Your task to perform on an android device: turn on bluetooth scan Image 0: 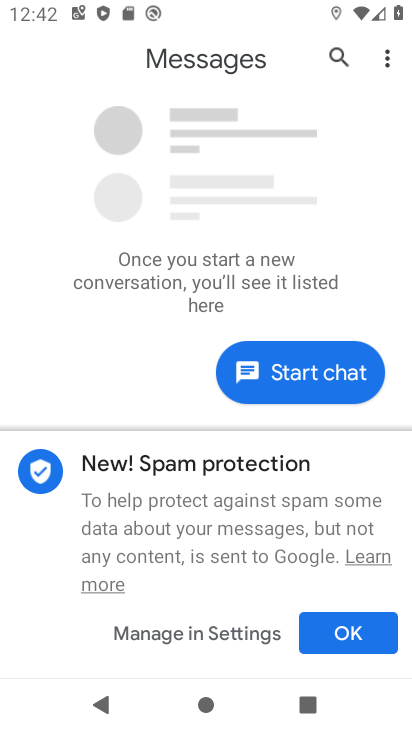
Step 0: press home button
Your task to perform on an android device: turn on bluetooth scan Image 1: 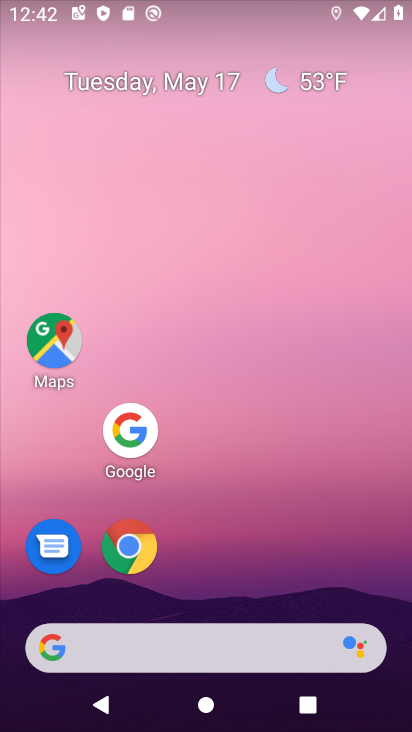
Step 1: drag from (245, 546) to (271, 159)
Your task to perform on an android device: turn on bluetooth scan Image 2: 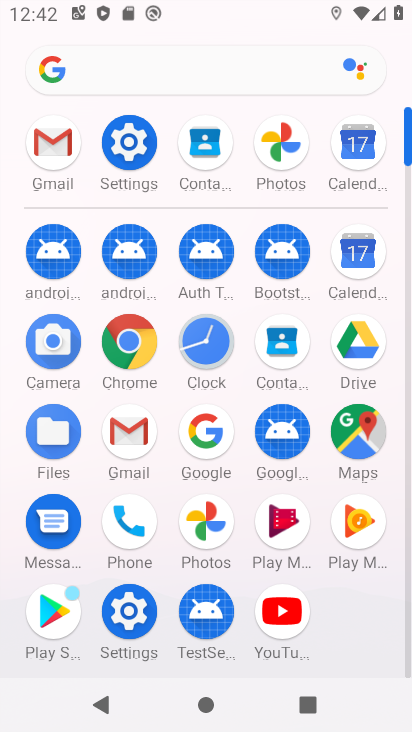
Step 2: click (130, 617)
Your task to perform on an android device: turn on bluetooth scan Image 3: 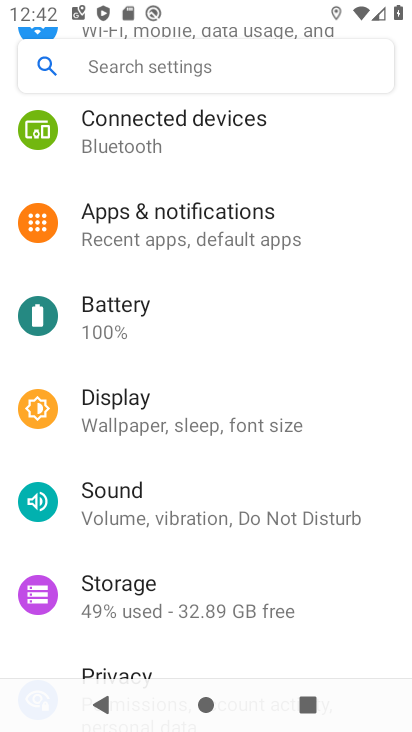
Step 3: drag from (181, 264) to (254, 85)
Your task to perform on an android device: turn on bluetooth scan Image 4: 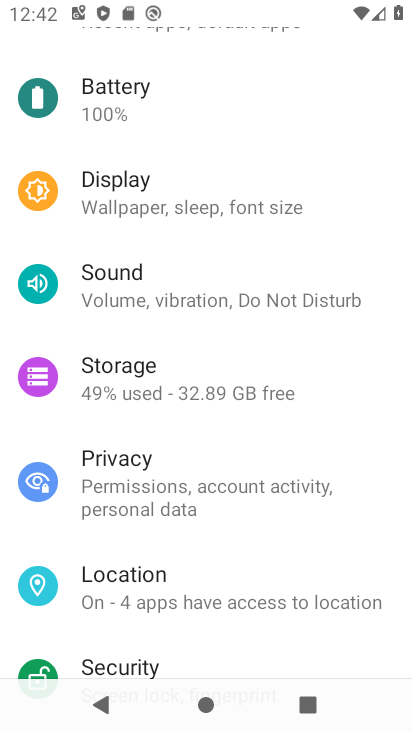
Step 4: click (155, 584)
Your task to perform on an android device: turn on bluetooth scan Image 5: 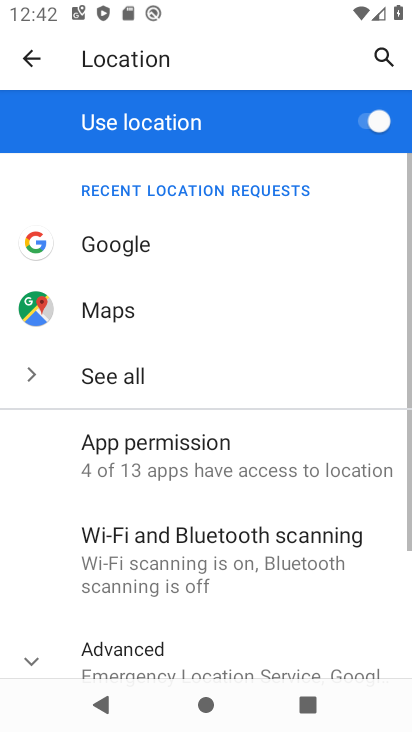
Step 5: drag from (149, 613) to (193, 364)
Your task to perform on an android device: turn on bluetooth scan Image 6: 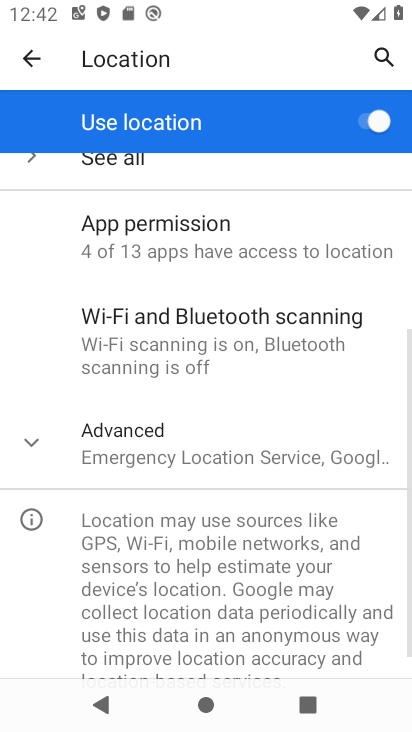
Step 6: click (171, 343)
Your task to perform on an android device: turn on bluetooth scan Image 7: 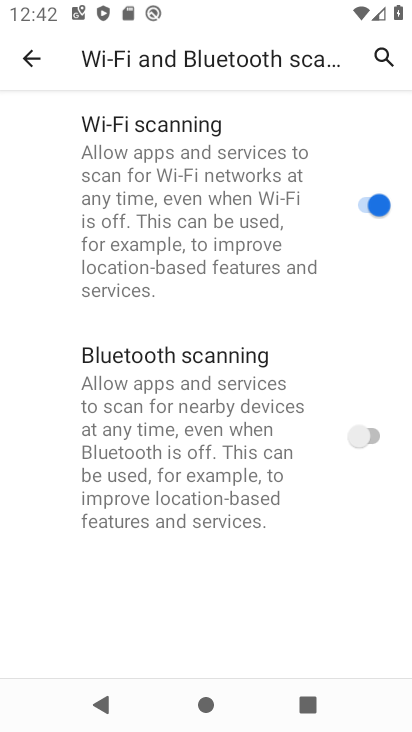
Step 7: click (368, 436)
Your task to perform on an android device: turn on bluetooth scan Image 8: 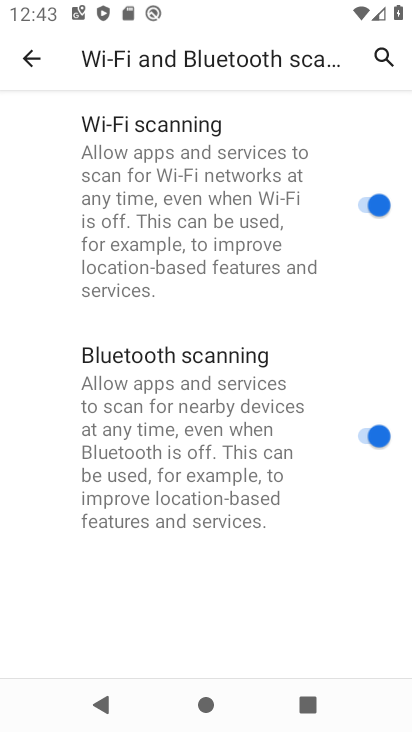
Step 8: task complete